Your task to perform on an android device: Go to CNN.com Image 0: 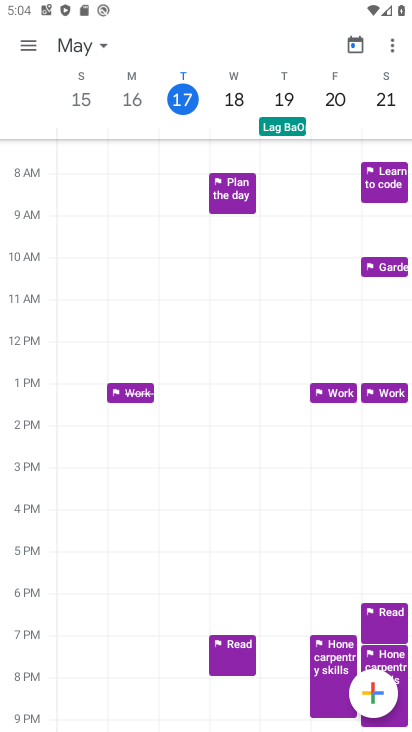
Step 0: press home button
Your task to perform on an android device: Go to CNN.com Image 1: 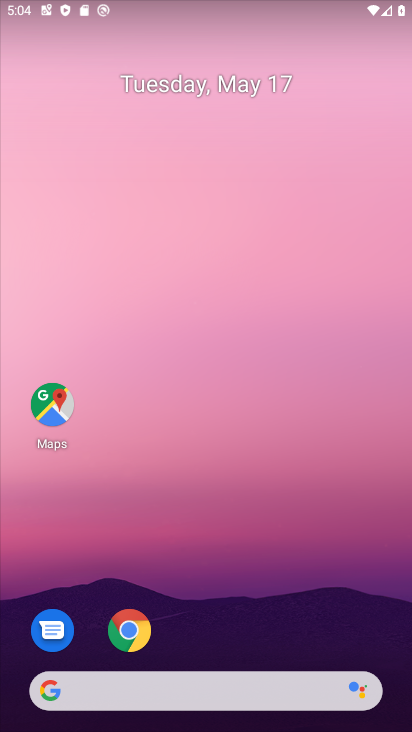
Step 1: drag from (277, 528) to (358, 73)
Your task to perform on an android device: Go to CNN.com Image 2: 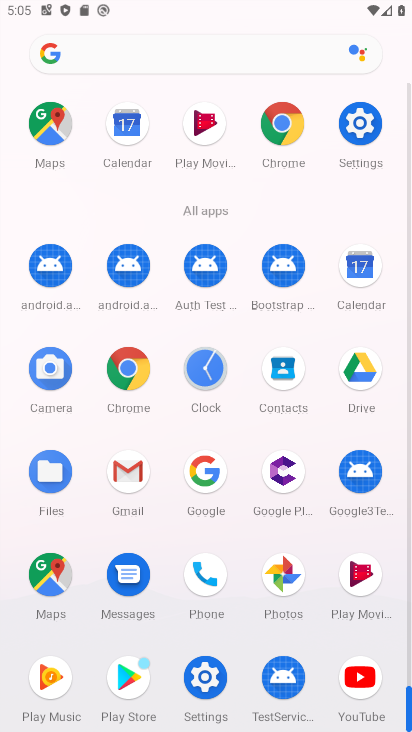
Step 2: click (287, 137)
Your task to perform on an android device: Go to CNN.com Image 3: 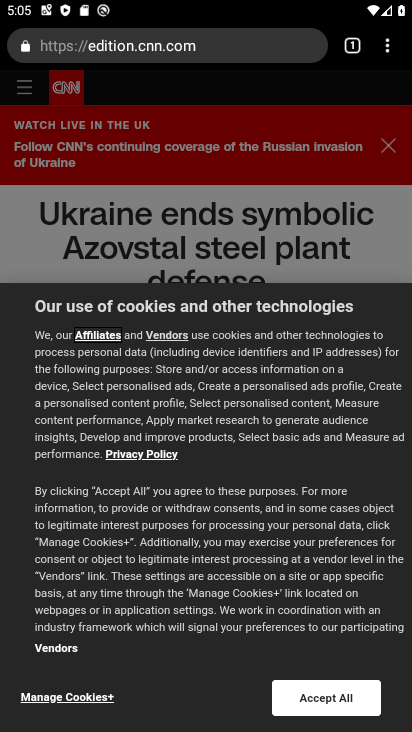
Step 3: task complete